Your task to perform on an android device: change text size in settings app Image 0: 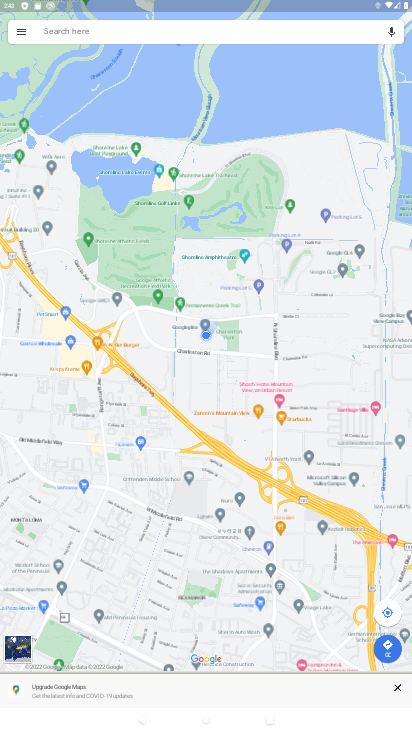
Step 0: press home button
Your task to perform on an android device: change text size in settings app Image 1: 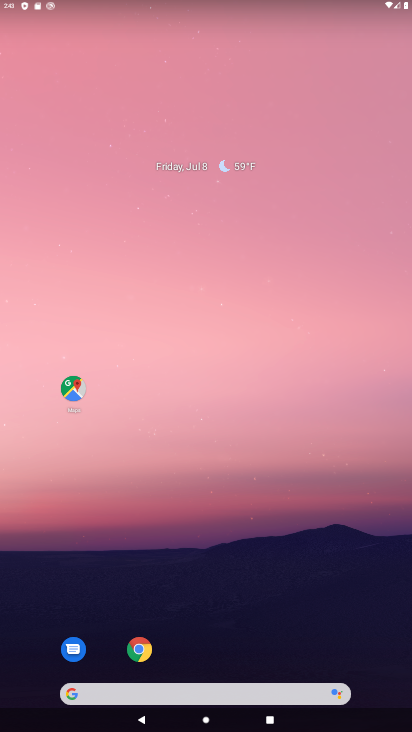
Step 1: drag from (298, 576) to (269, 110)
Your task to perform on an android device: change text size in settings app Image 2: 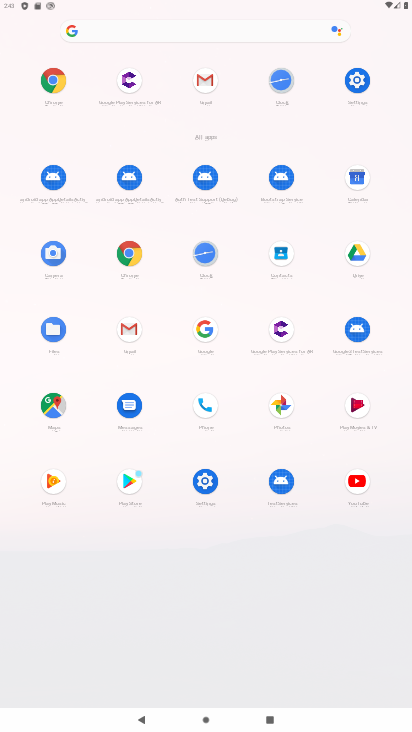
Step 2: click (359, 82)
Your task to perform on an android device: change text size in settings app Image 3: 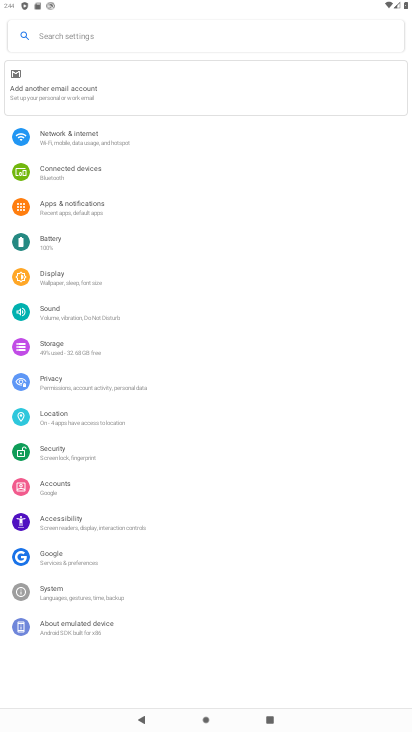
Step 3: click (91, 280)
Your task to perform on an android device: change text size in settings app Image 4: 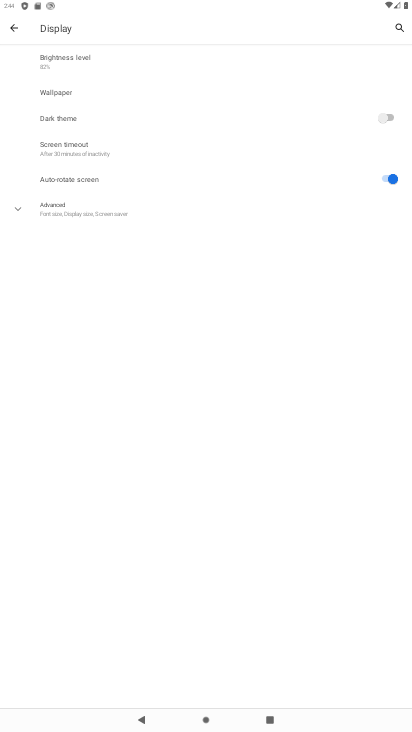
Step 4: click (70, 207)
Your task to perform on an android device: change text size in settings app Image 5: 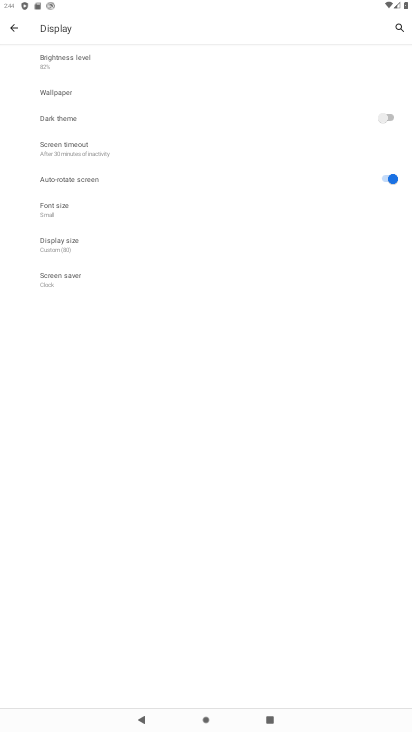
Step 5: click (58, 200)
Your task to perform on an android device: change text size in settings app Image 6: 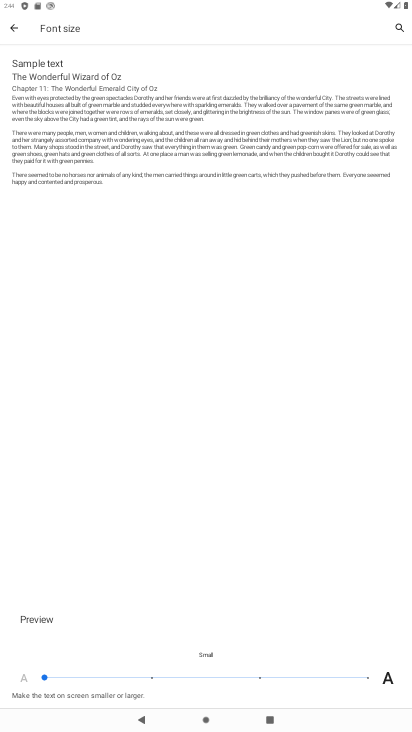
Step 6: click (145, 679)
Your task to perform on an android device: change text size in settings app Image 7: 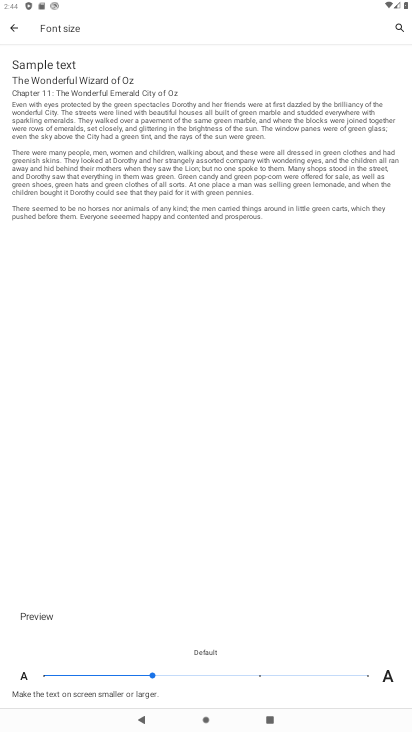
Step 7: task complete